Your task to perform on an android device: turn off airplane mode Image 0: 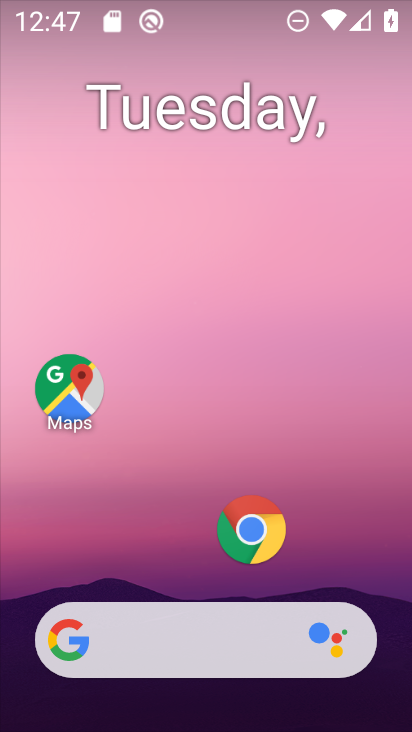
Step 0: drag from (211, 669) to (282, 158)
Your task to perform on an android device: turn off airplane mode Image 1: 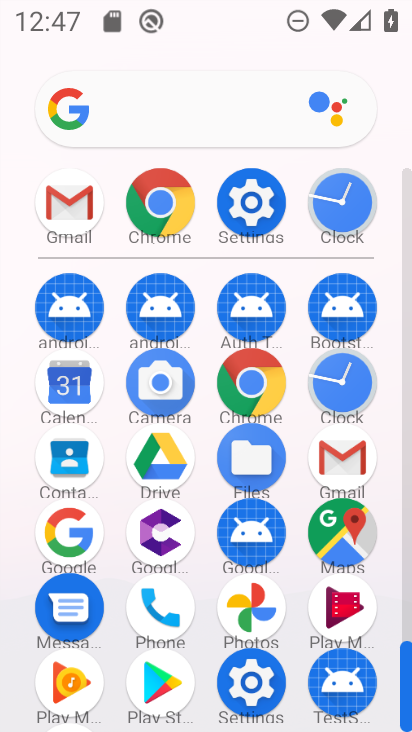
Step 1: click (258, 231)
Your task to perform on an android device: turn off airplane mode Image 2: 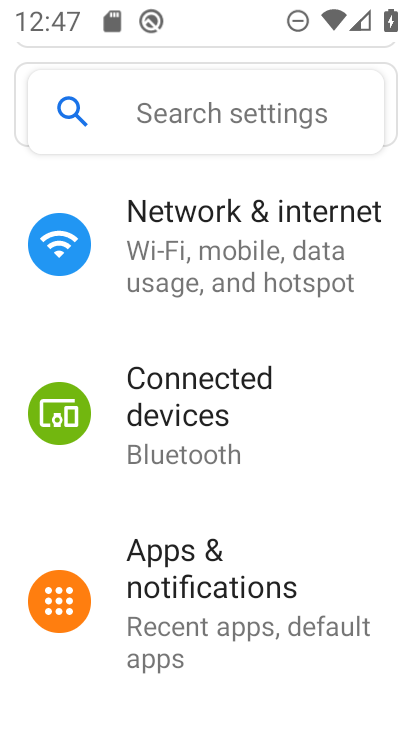
Step 2: click (216, 281)
Your task to perform on an android device: turn off airplane mode Image 3: 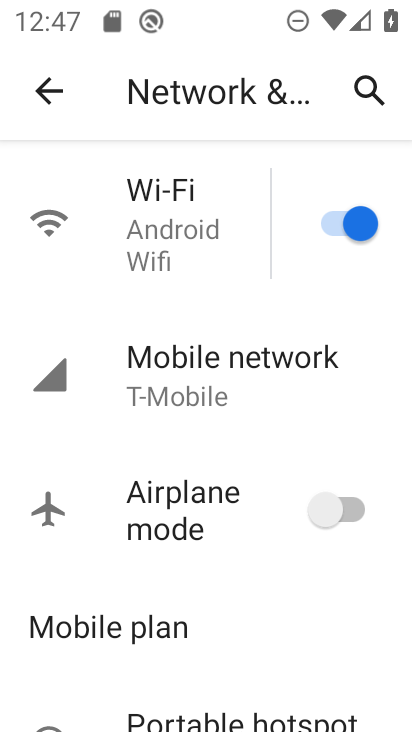
Step 3: click (333, 499)
Your task to perform on an android device: turn off airplane mode Image 4: 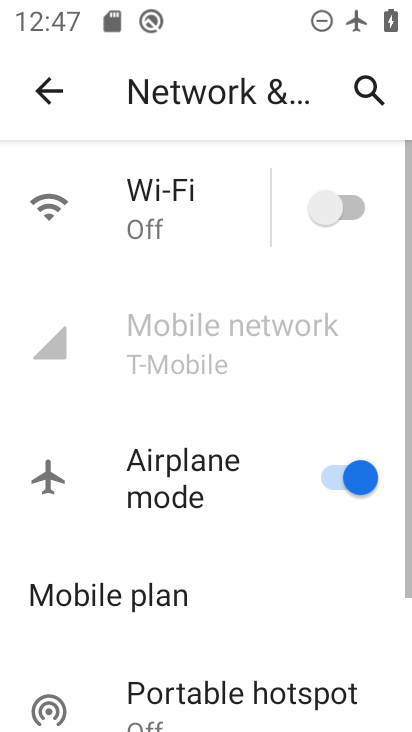
Step 4: click (333, 499)
Your task to perform on an android device: turn off airplane mode Image 5: 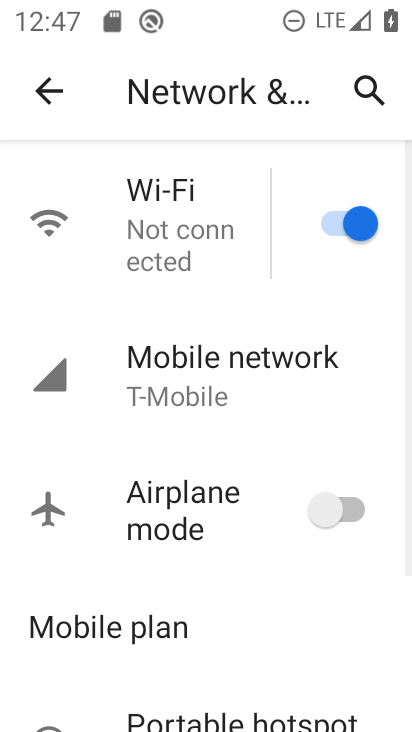
Step 5: task complete